Your task to perform on an android device: Go to accessibility settings Image 0: 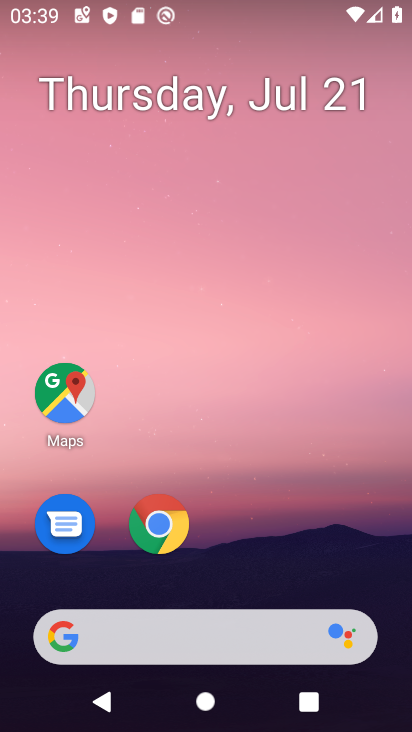
Step 0: drag from (280, 578) to (306, 19)
Your task to perform on an android device: Go to accessibility settings Image 1: 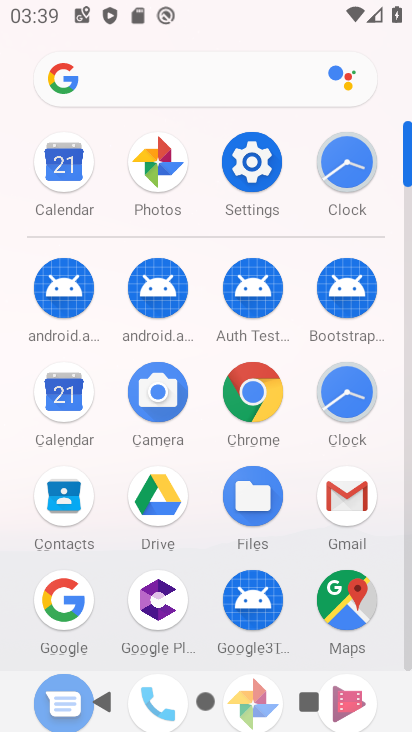
Step 1: click (253, 158)
Your task to perform on an android device: Go to accessibility settings Image 2: 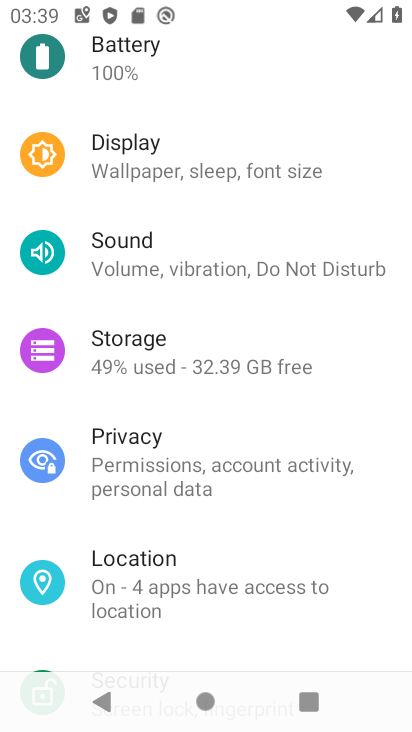
Step 2: drag from (239, 524) to (252, 35)
Your task to perform on an android device: Go to accessibility settings Image 3: 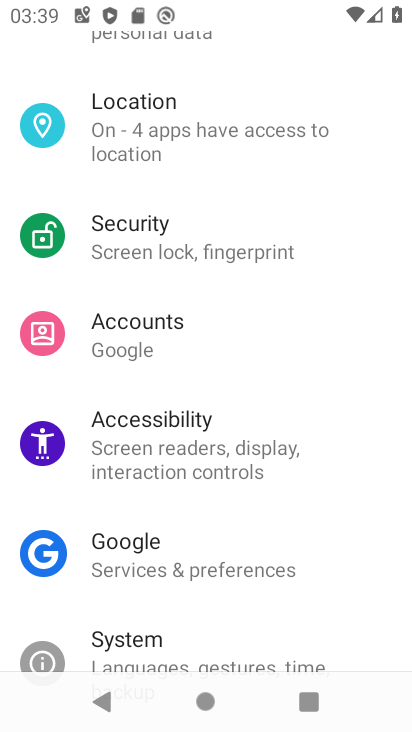
Step 3: click (201, 432)
Your task to perform on an android device: Go to accessibility settings Image 4: 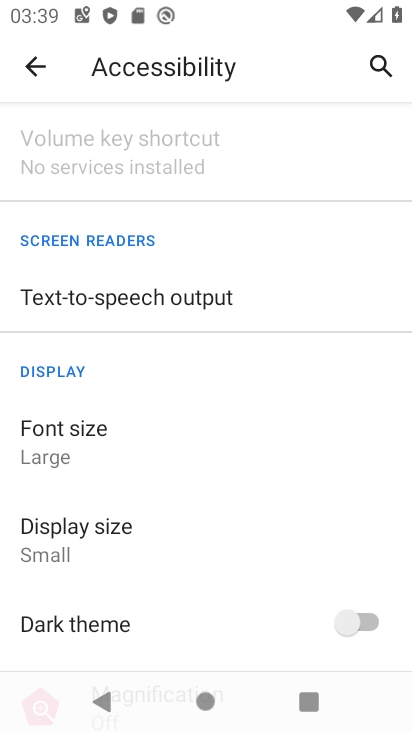
Step 4: task complete